Your task to perform on an android device: find photos in the google photos app Image 0: 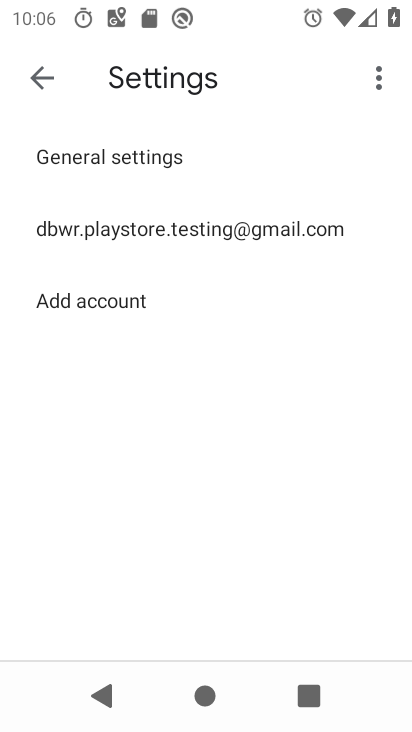
Step 0: press home button
Your task to perform on an android device: find photos in the google photos app Image 1: 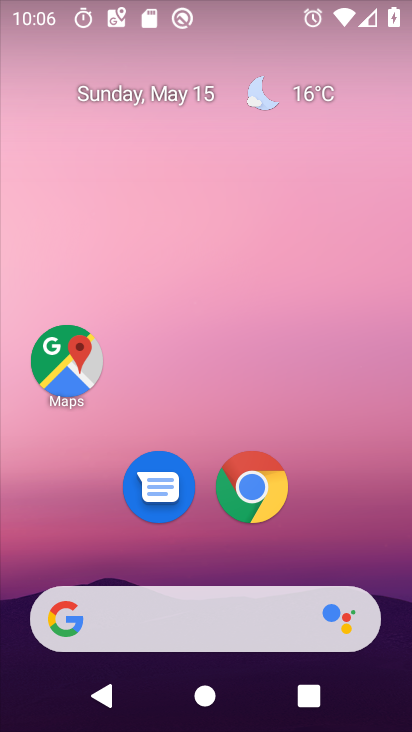
Step 1: drag from (376, 565) to (349, 173)
Your task to perform on an android device: find photos in the google photos app Image 2: 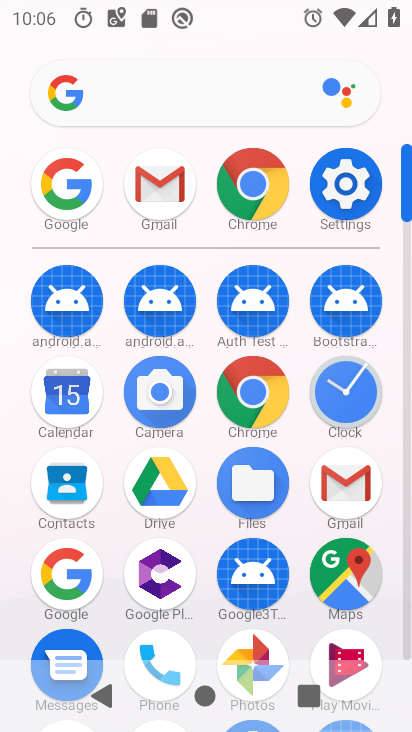
Step 2: click (257, 645)
Your task to perform on an android device: find photos in the google photos app Image 3: 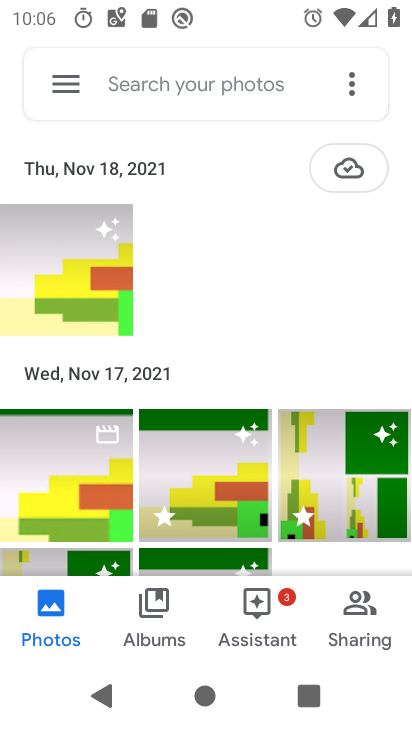
Step 3: task complete